Your task to perform on an android device: Open Google Chrome Image 0: 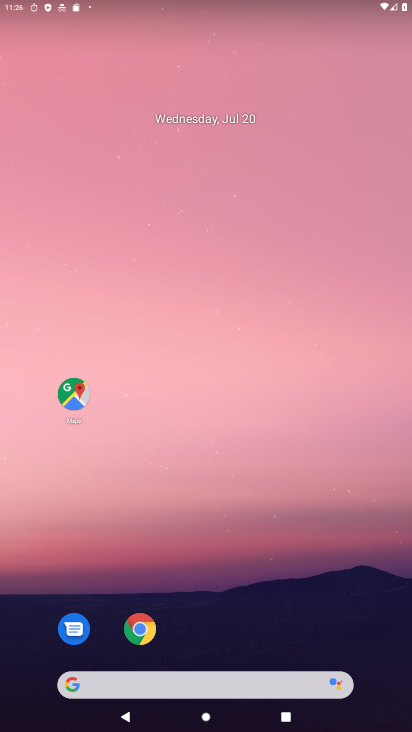
Step 0: drag from (219, 674) to (247, 220)
Your task to perform on an android device: Open Google Chrome Image 1: 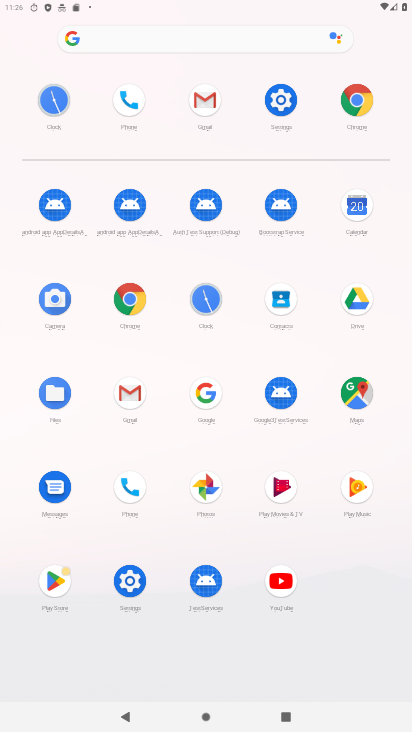
Step 1: click (142, 291)
Your task to perform on an android device: Open Google Chrome Image 2: 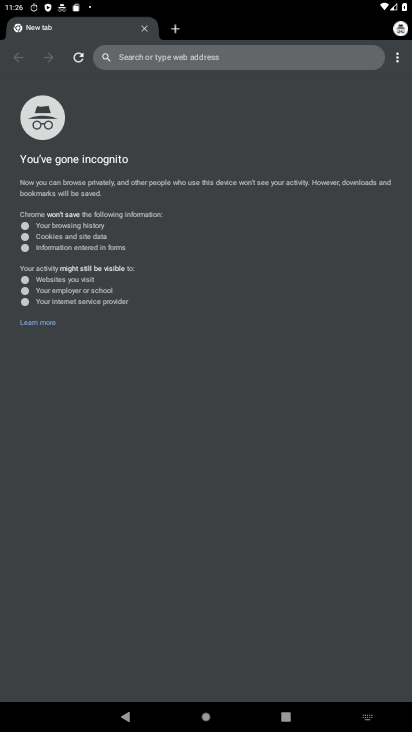
Step 2: task complete